Your task to perform on an android device: Search for Mexican restaurants on Maps Image 0: 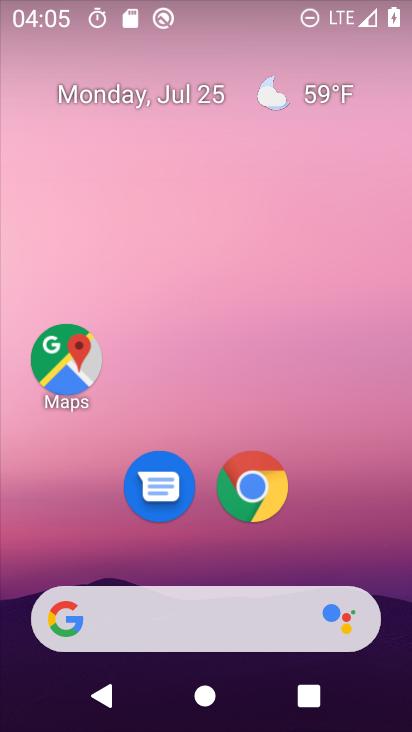
Step 0: click (52, 354)
Your task to perform on an android device: Search for Mexican restaurants on Maps Image 1: 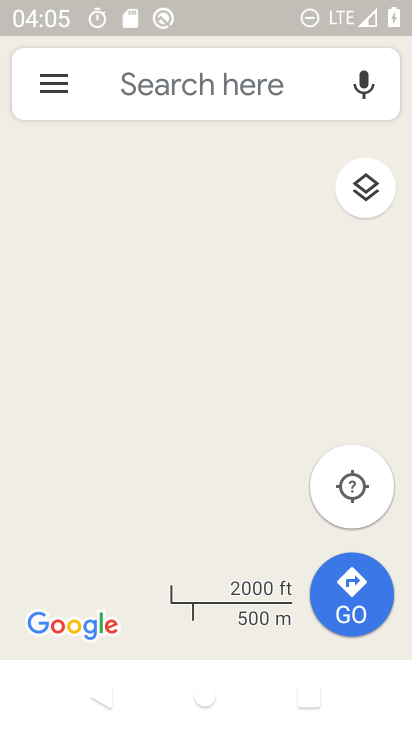
Step 1: click (227, 92)
Your task to perform on an android device: Search for Mexican restaurants on Maps Image 2: 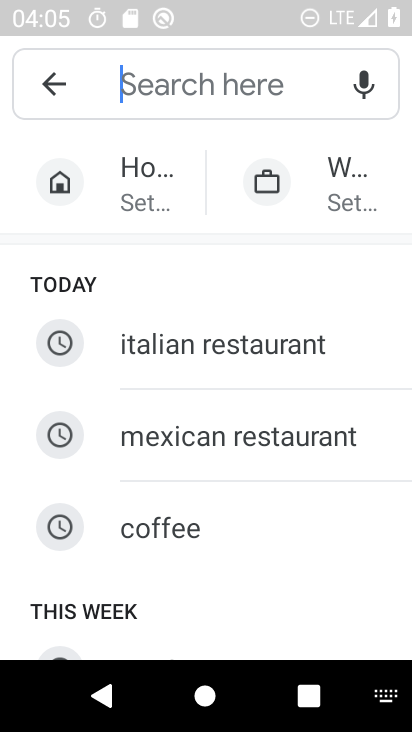
Step 2: click (196, 439)
Your task to perform on an android device: Search for Mexican restaurants on Maps Image 3: 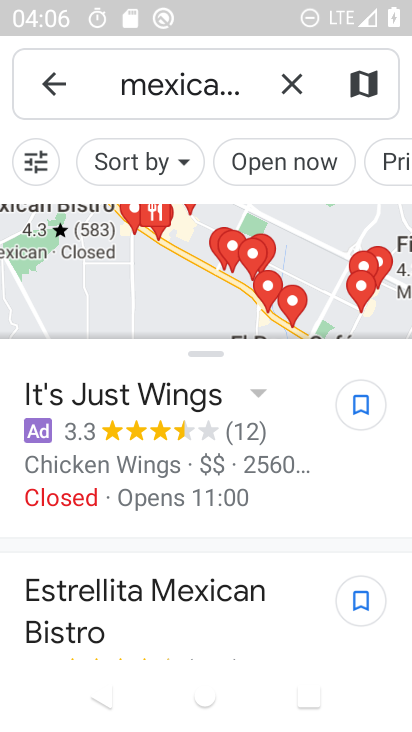
Step 3: task complete